Your task to perform on an android device: Turn on the flashlight Image 0: 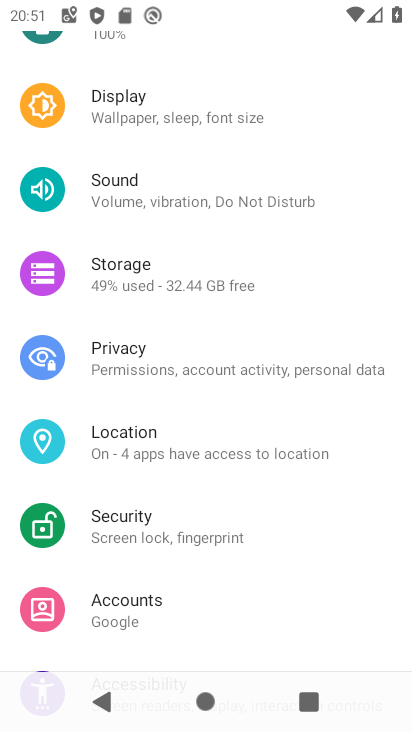
Step 0: drag from (270, 191) to (215, 572)
Your task to perform on an android device: Turn on the flashlight Image 1: 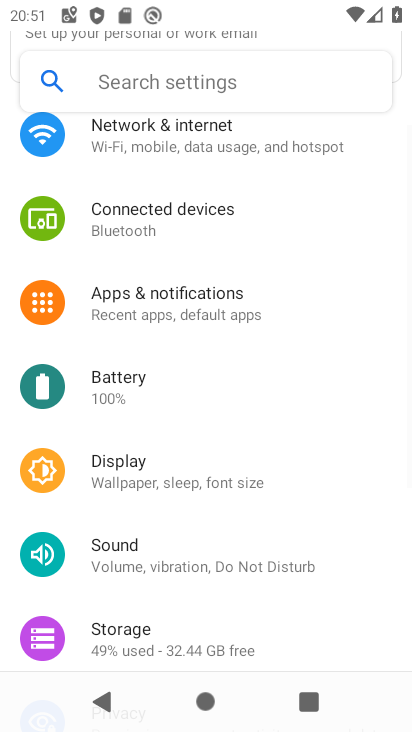
Step 1: drag from (209, 221) to (195, 585)
Your task to perform on an android device: Turn on the flashlight Image 2: 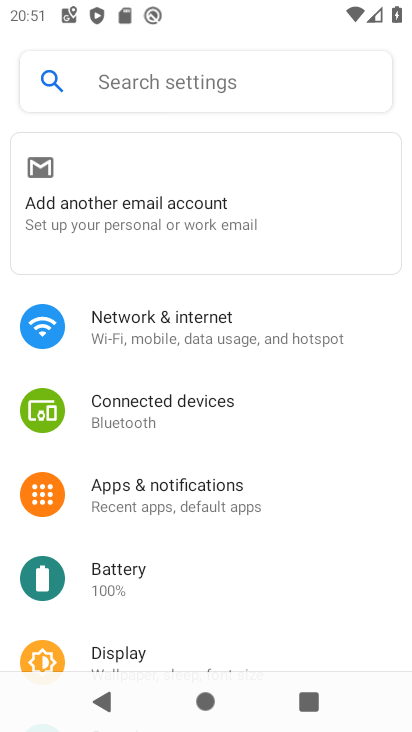
Step 2: click (238, 87)
Your task to perform on an android device: Turn on the flashlight Image 3: 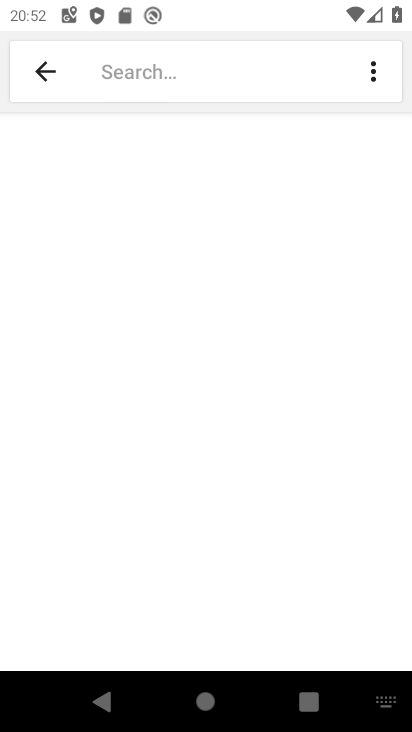
Step 3: type "Flashlight"
Your task to perform on an android device: Turn on the flashlight Image 4: 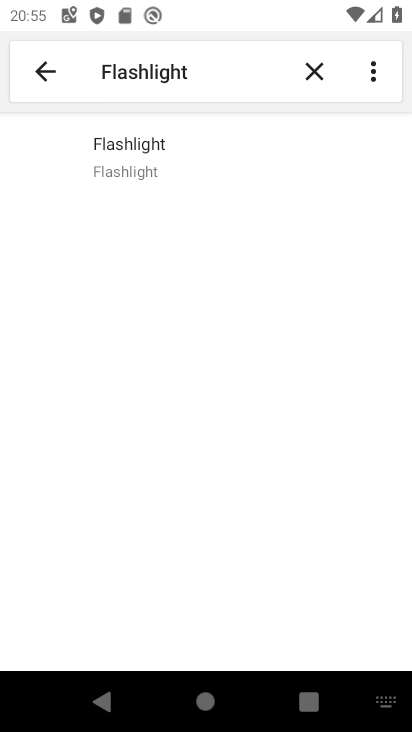
Step 4: task complete